Your task to perform on an android device: clear all cookies in the chrome app Image 0: 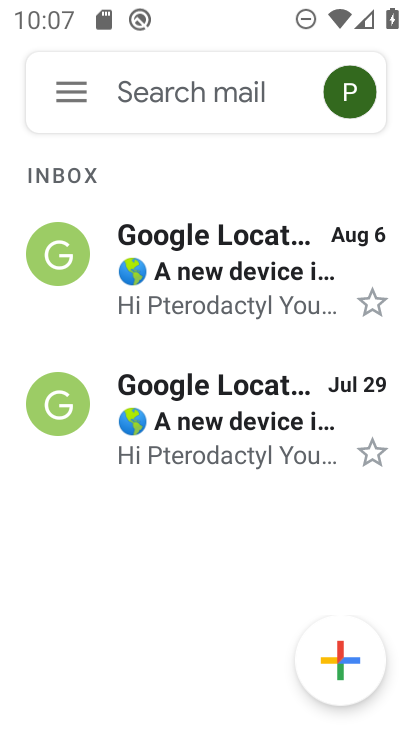
Step 0: press home button
Your task to perform on an android device: clear all cookies in the chrome app Image 1: 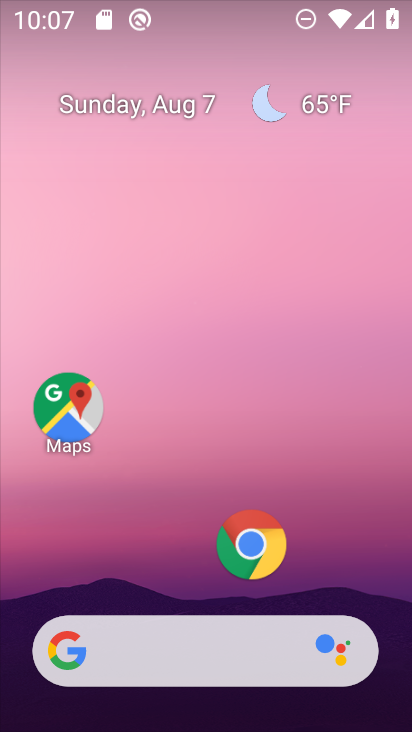
Step 1: click (246, 554)
Your task to perform on an android device: clear all cookies in the chrome app Image 2: 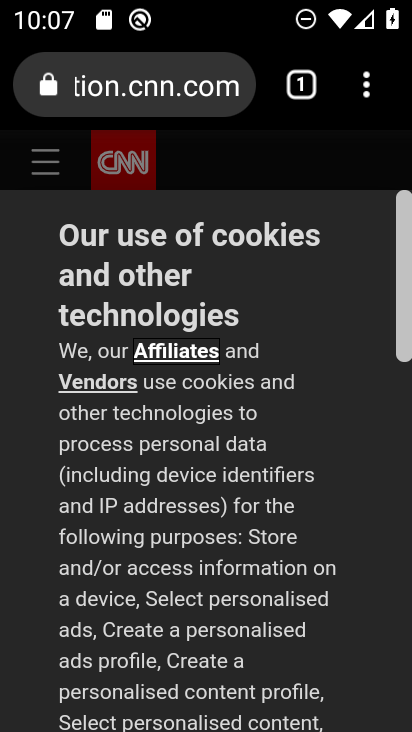
Step 2: drag from (378, 92) to (93, 595)
Your task to perform on an android device: clear all cookies in the chrome app Image 3: 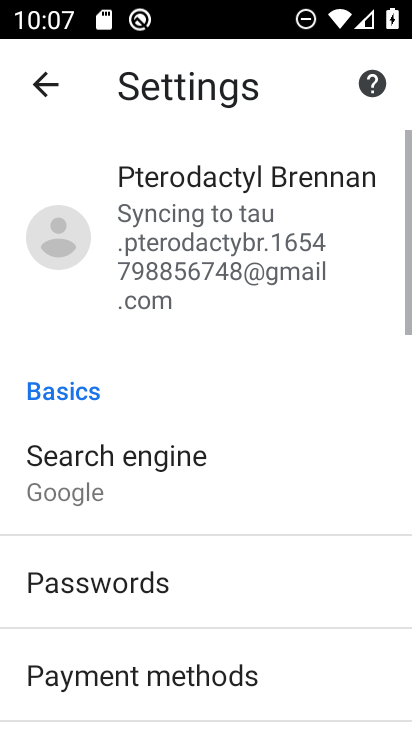
Step 3: drag from (119, 682) to (41, 63)
Your task to perform on an android device: clear all cookies in the chrome app Image 4: 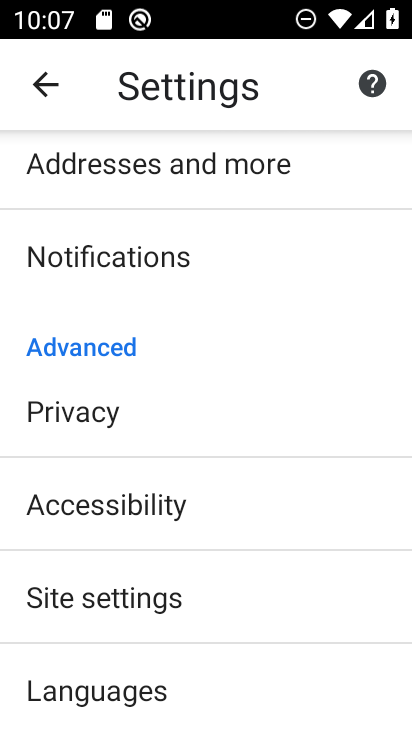
Step 4: click (127, 603)
Your task to perform on an android device: clear all cookies in the chrome app Image 5: 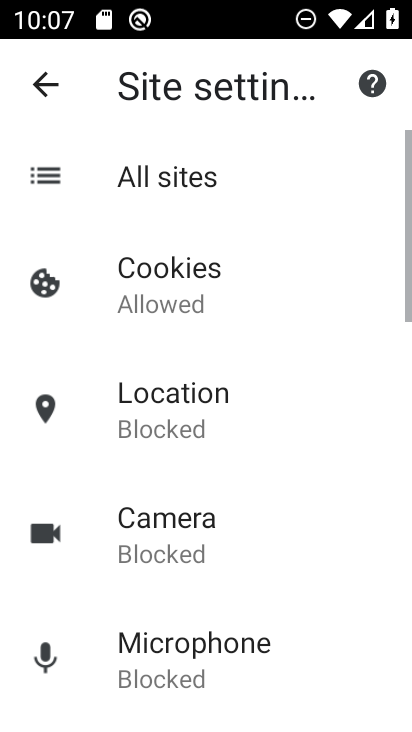
Step 5: drag from (161, 608) to (146, 518)
Your task to perform on an android device: clear all cookies in the chrome app Image 6: 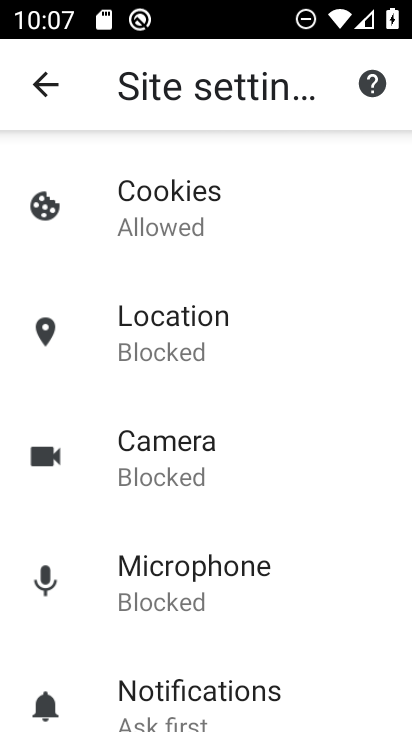
Step 6: click (167, 208)
Your task to perform on an android device: clear all cookies in the chrome app Image 7: 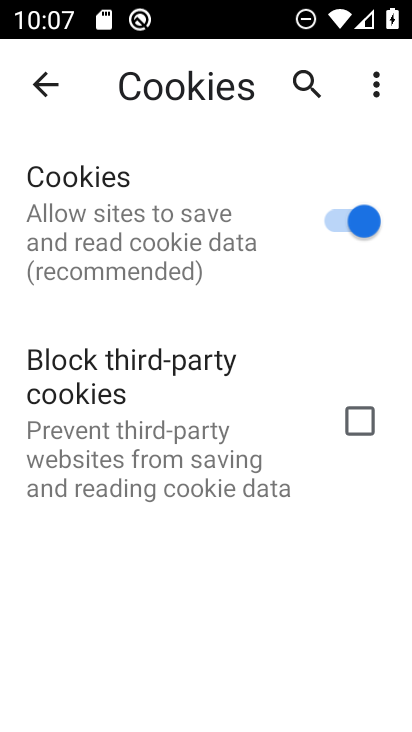
Step 7: click (60, 83)
Your task to perform on an android device: clear all cookies in the chrome app Image 8: 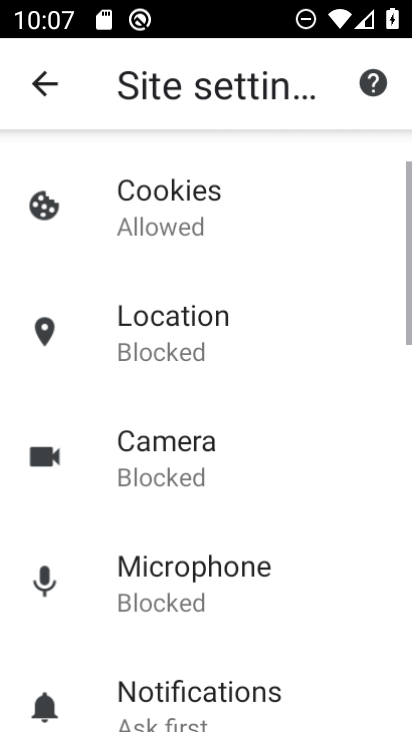
Step 8: click (58, 82)
Your task to perform on an android device: clear all cookies in the chrome app Image 9: 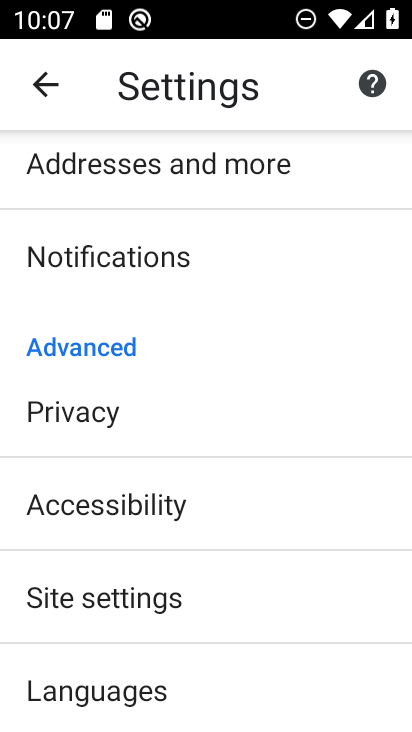
Step 9: drag from (160, 543) to (95, 132)
Your task to perform on an android device: clear all cookies in the chrome app Image 10: 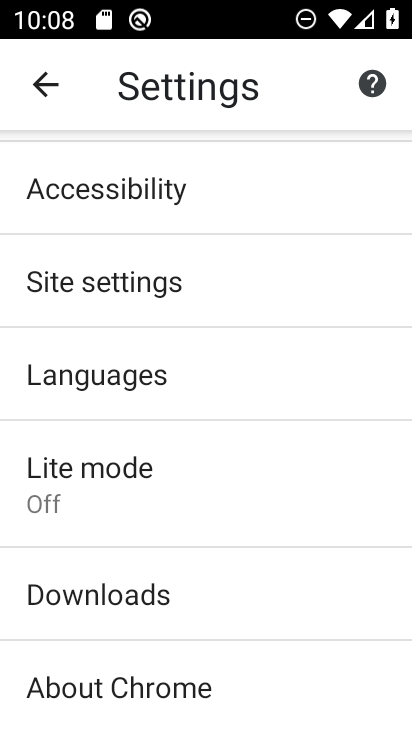
Step 10: drag from (101, 313) to (98, 722)
Your task to perform on an android device: clear all cookies in the chrome app Image 11: 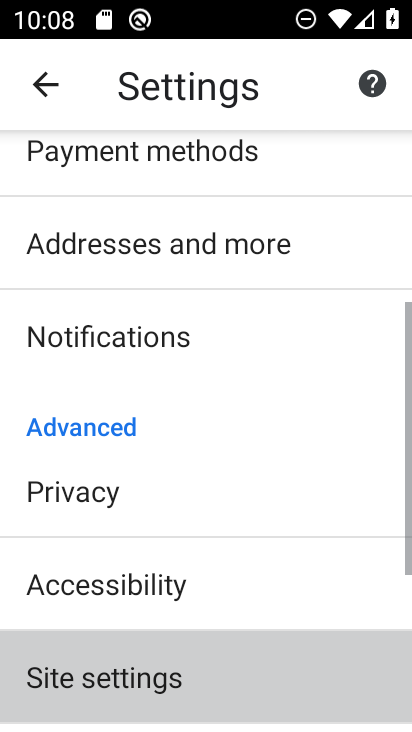
Step 11: drag from (99, 208) to (108, 410)
Your task to perform on an android device: clear all cookies in the chrome app Image 12: 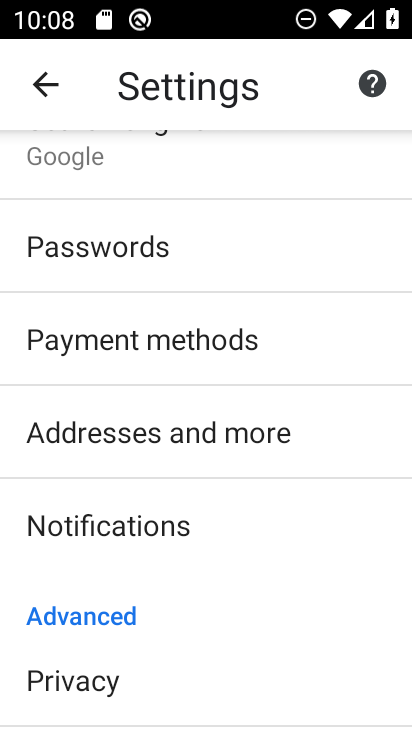
Step 12: click (98, 680)
Your task to perform on an android device: clear all cookies in the chrome app Image 13: 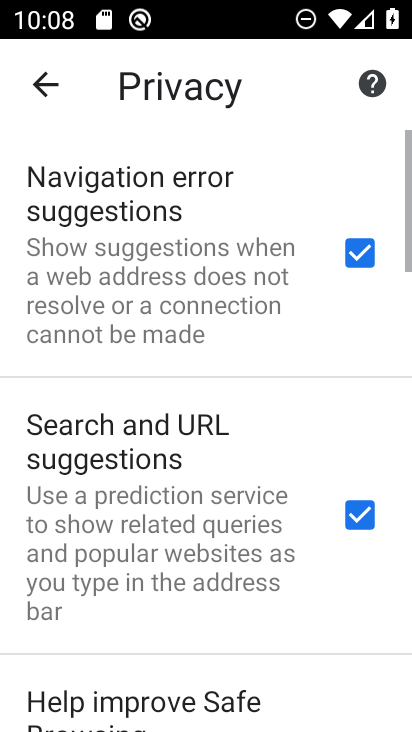
Step 13: drag from (105, 643) to (28, 8)
Your task to perform on an android device: clear all cookies in the chrome app Image 14: 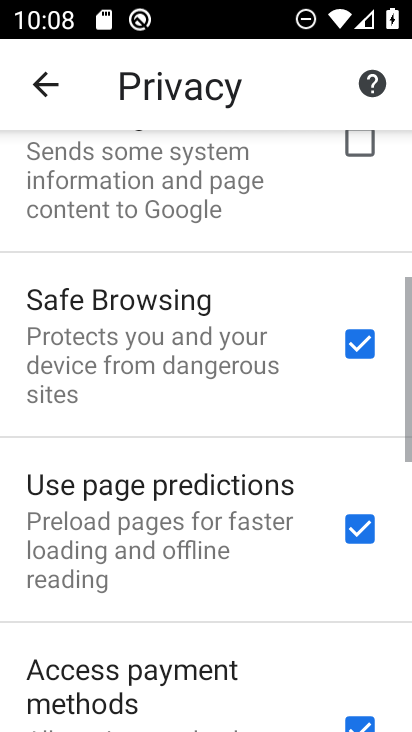
Step 14: drag from (66, 606) to (140, 15)
Your task to perform on an android device: clear all cookies in the chrome app Image 15: 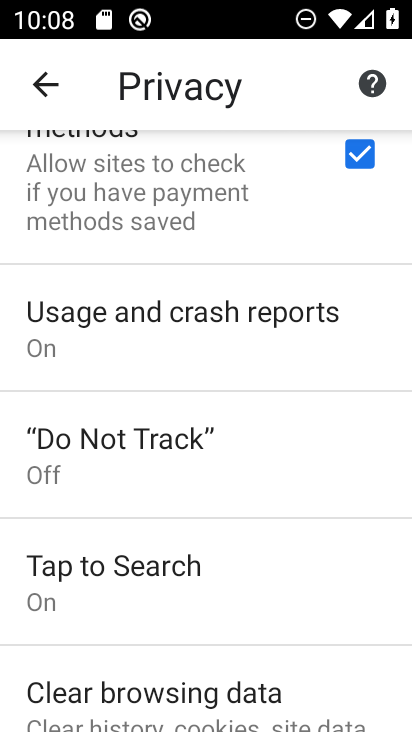
Step 15: click (189, 689)
Your task to perform on an android device: clear all cookies in the chrome app Image 16: 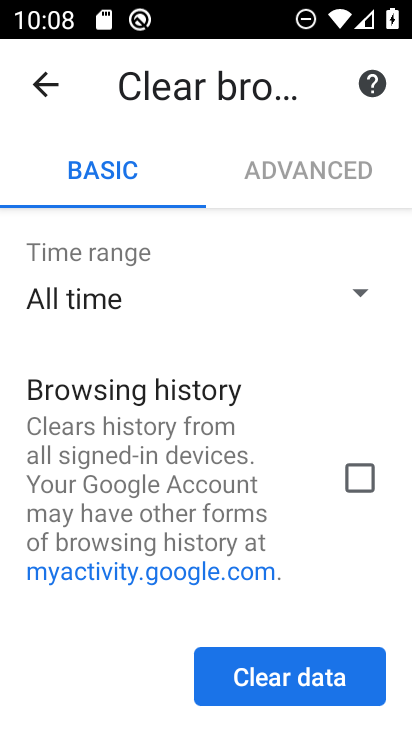
Step 16: drag from (138, 374) to (106, 48)
Your task to perform on an android device: clear all cookies in the chrome app Image 17: 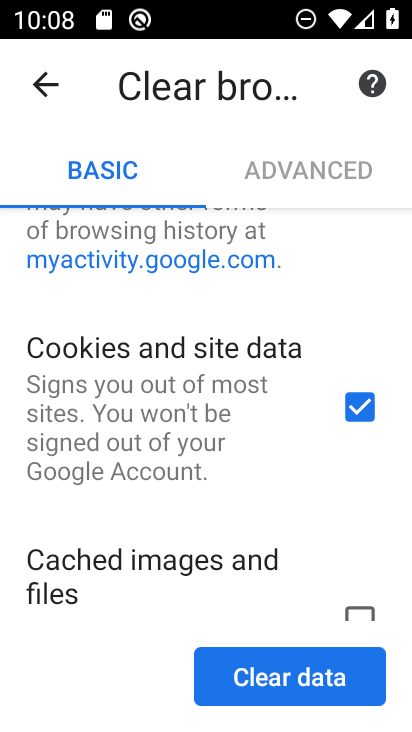
Step 17: click (248, 641)
Your task to perform on an android device: clear all cookies in the chrome app Image 18: 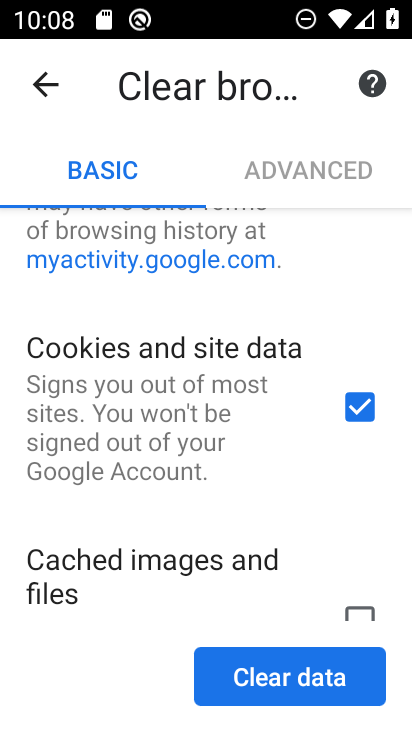
Step 18: click (256, 667)
Your task to perform on an android device: clear all cookies in the chrome app Image 19: 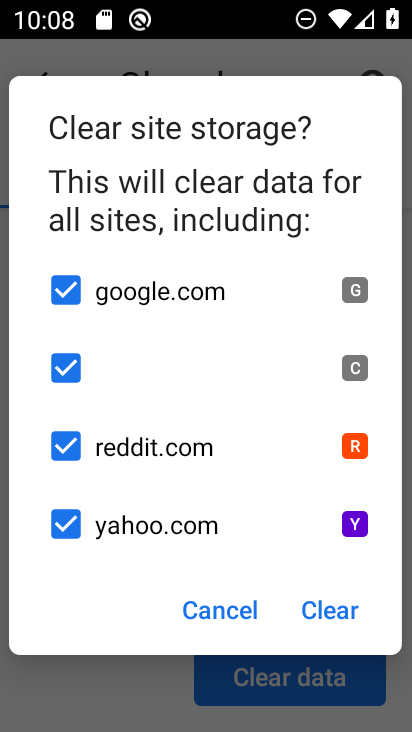
Step 19: click (301, 614)
Your task to perform on an android device: clear all cookies in the chrome app Image 20: 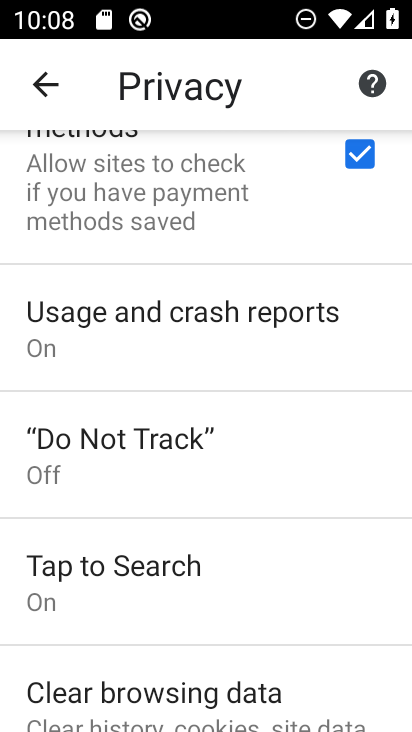
Step 20: task complete